Your task to perform on an android device: Go to wifi settings Image 0: 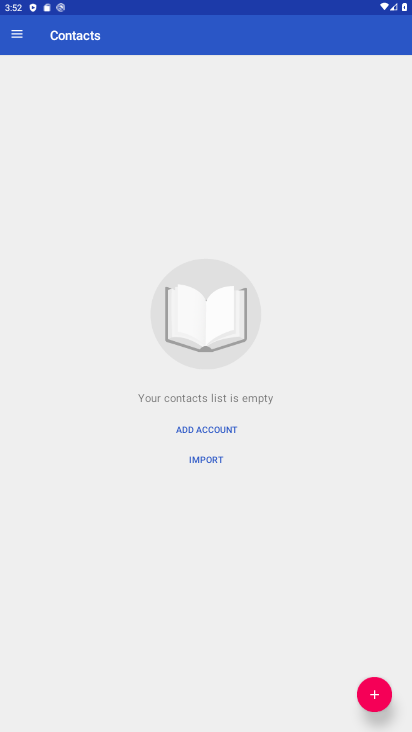
Step 0: press back button
Your task to perform on an android device: Go to wifi settings Image 1: 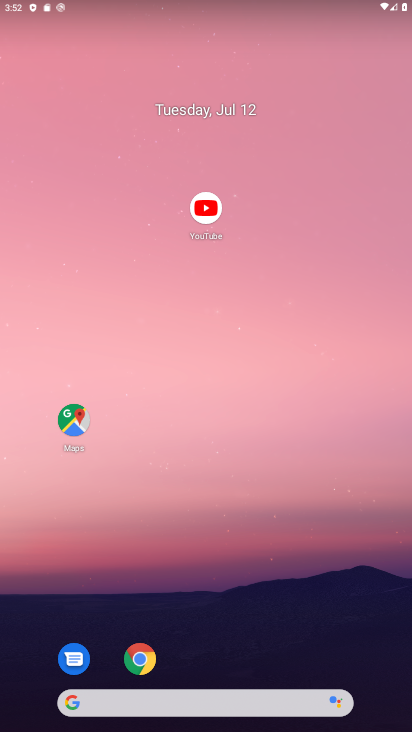
Step 1: drag from (239, 715) to (192, 70)
Your task to perform on an android device: Go to wifi settings Image 2: 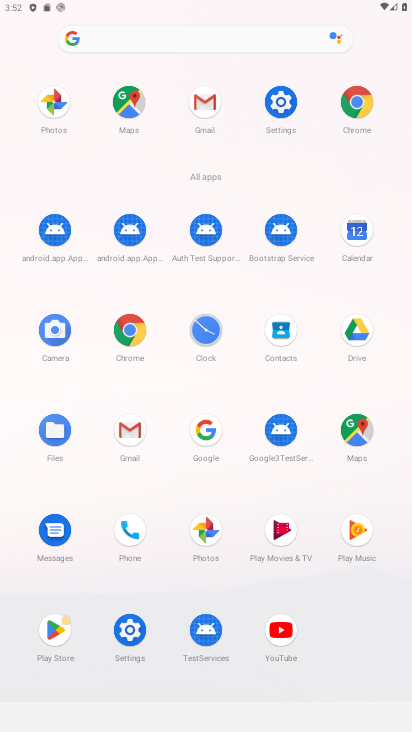
Step 2: click (264, 108)
Your task to perform on an android device: Go to wifi settings Image 3: 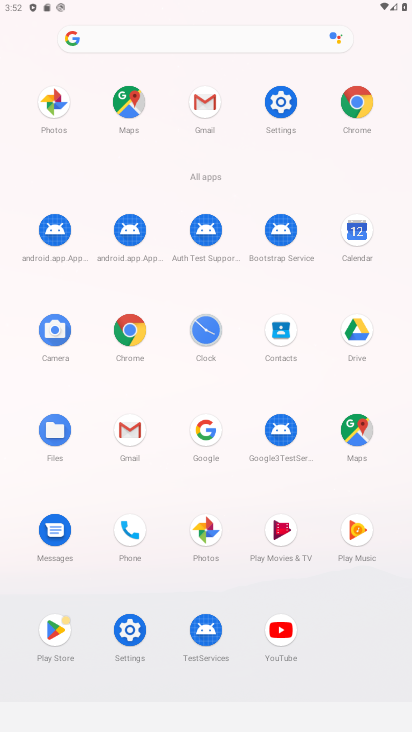
Step 3: click (264, 108)
Your task to perform on an android device: Go to wifi settings Image 4: 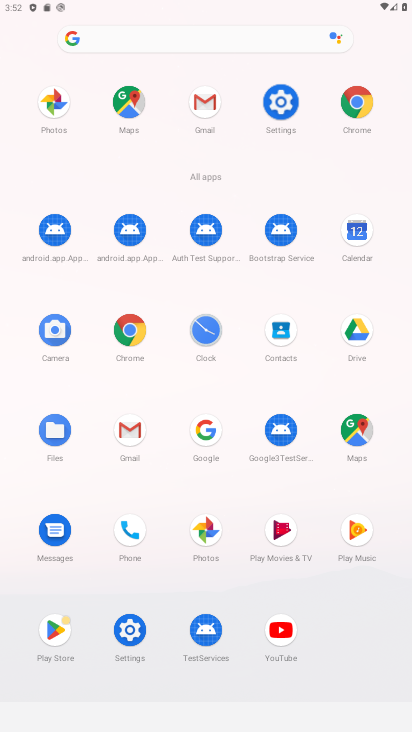
Step 4: click (264, 108)
Your task to perform on an android device: Go to wifi settings Image 5: 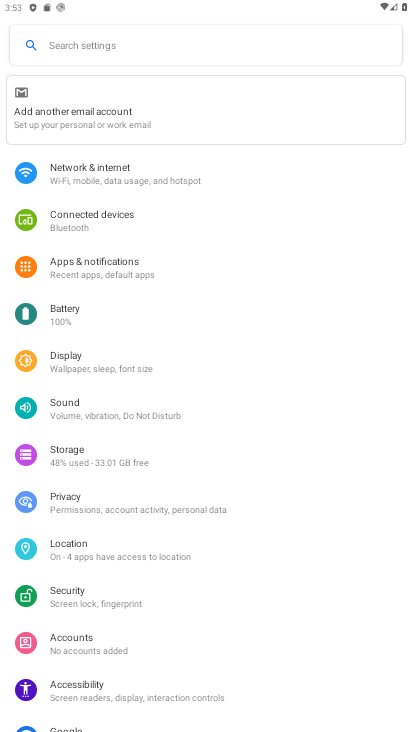
Step 5: click (62, 163)
Your task to perform on an android device: Go to wifi settings Image 6: 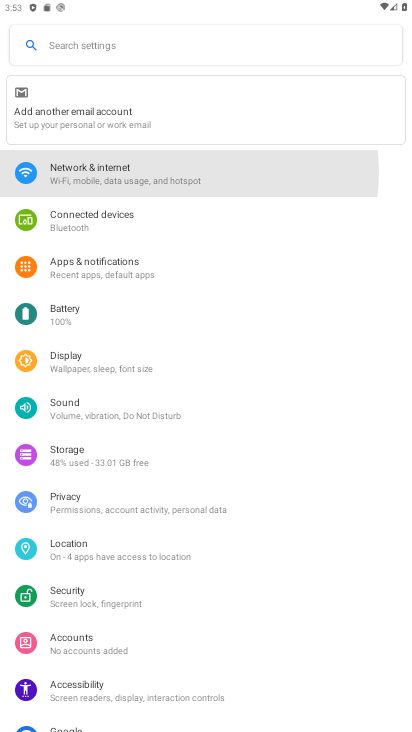
Step 6: click (66, 166)
Your task to perform on an android device: Go to wifi settings Image 7: 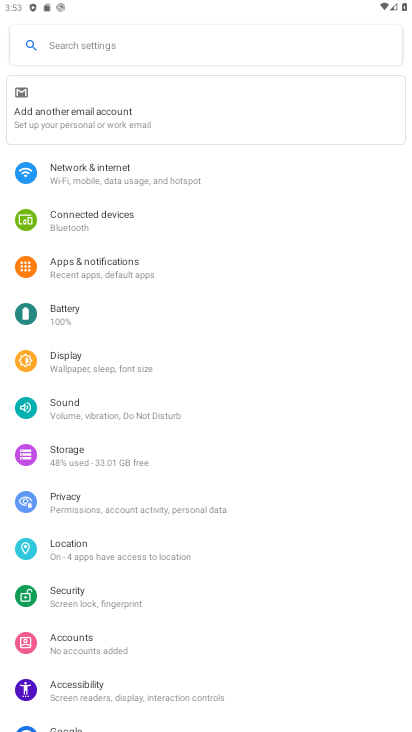
Step 7: click (66, 166)
Your task to perform on an android device: Go to wifi settings Image 8: 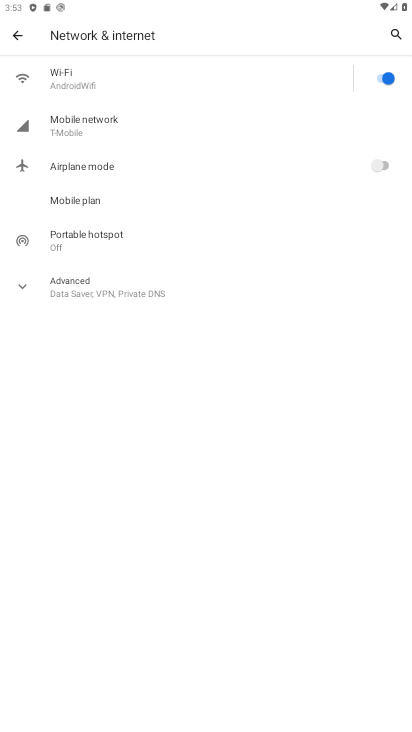
Step 8: click (64, 84)
Your task to perform on an android device: Go to wifi settings Image 9: 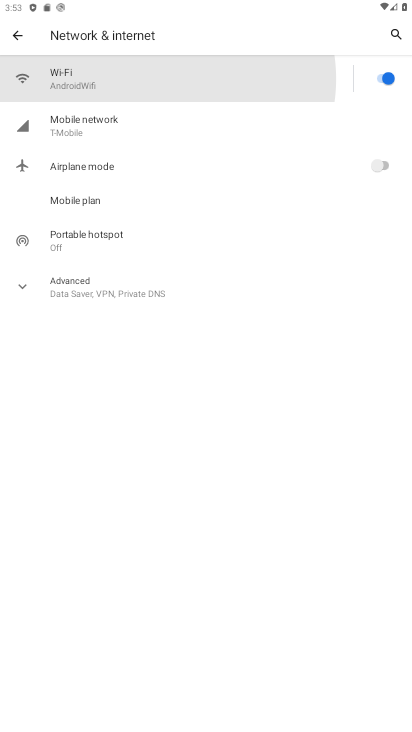
Step 9: click (64, 82)
Your task to perform on an android device: Go to wifi settings Image 10: 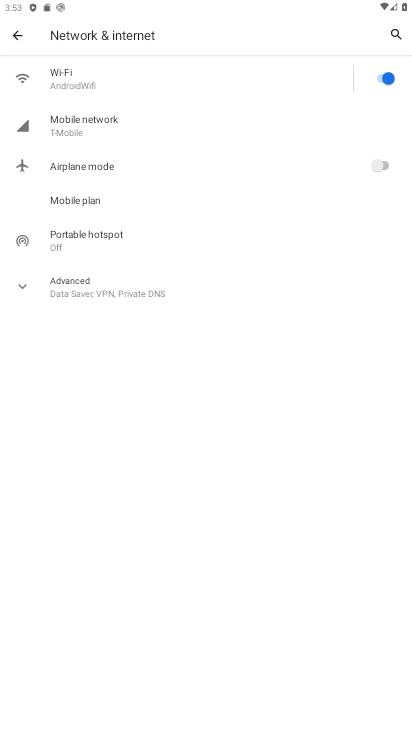
Step 10: click (64, 82)
Your task to perform on an android device: Go to wifi settings Image 11: 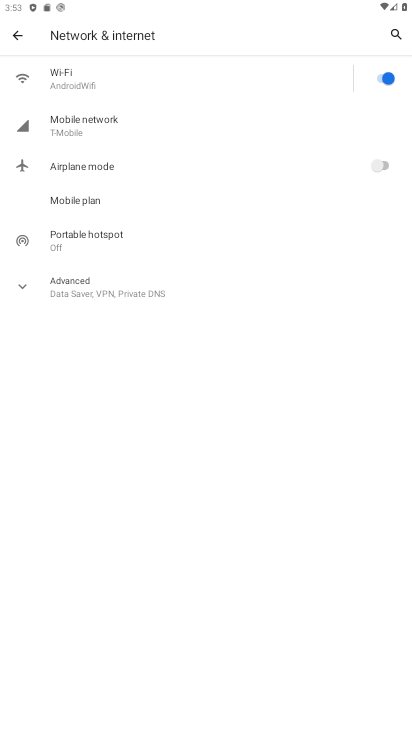
Step 11: click (64, 87)
Your task to perform on an android device: Go to wifi settings Image 12: 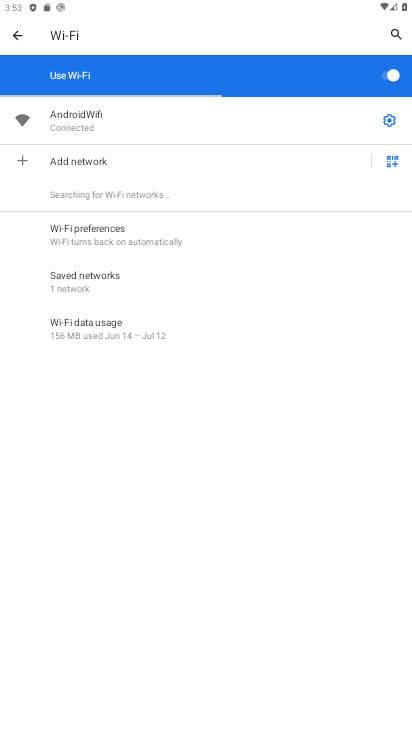
Step 12: task complete